Your task to perform on an android device: Search for sushi restaurants on Maps Image 0: 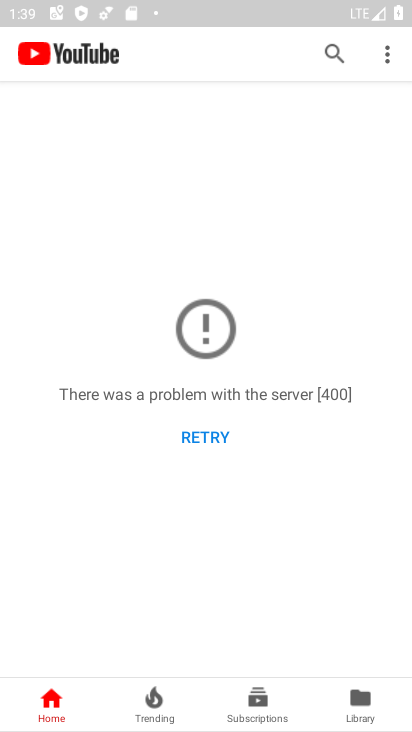
Step 0: press home button
Your task to perform on an android device: Search for sushi restaurants on Maps Image 1: 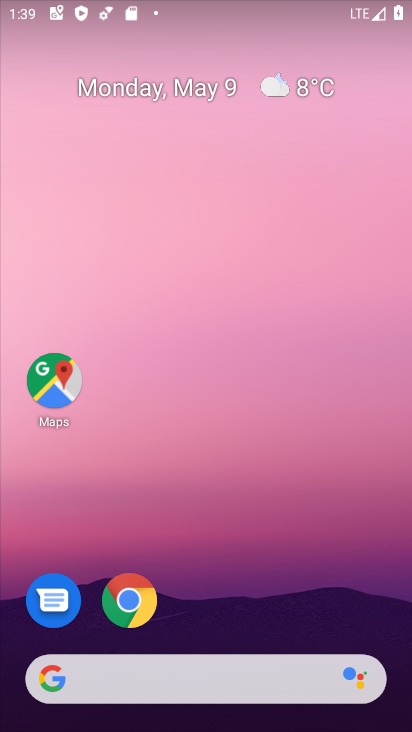
Step 1: click (42, 374)
Your task to perform on an android device: Search for sushi restaurants on Maps Image 2: 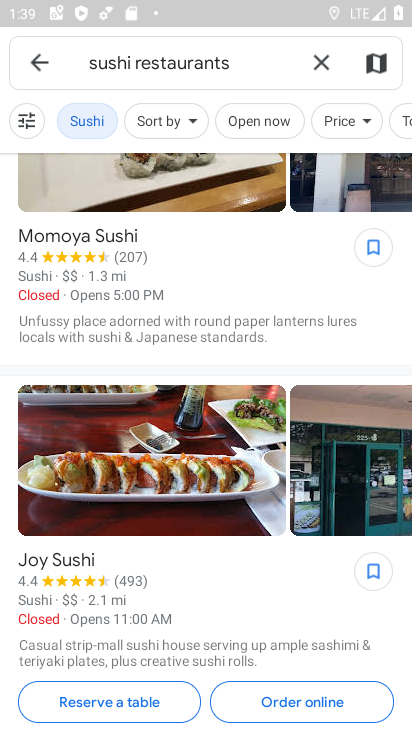
Step 2: task complete